Your task to perform on an android device: When is my next meeting? Image 0: 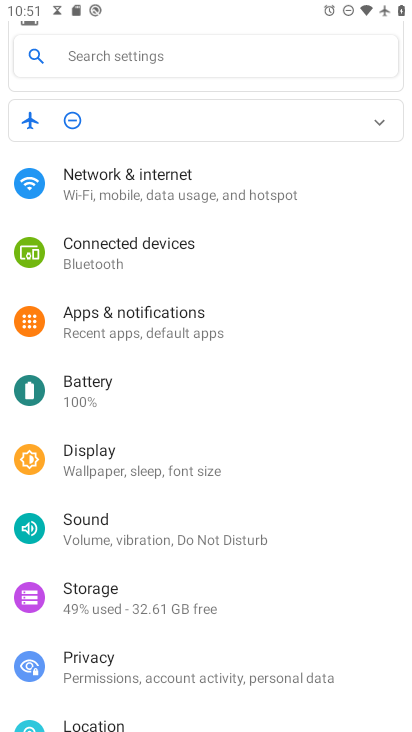
Step 0: press home button
Your task to perform on an android device: When is my next meeting? Image 1: 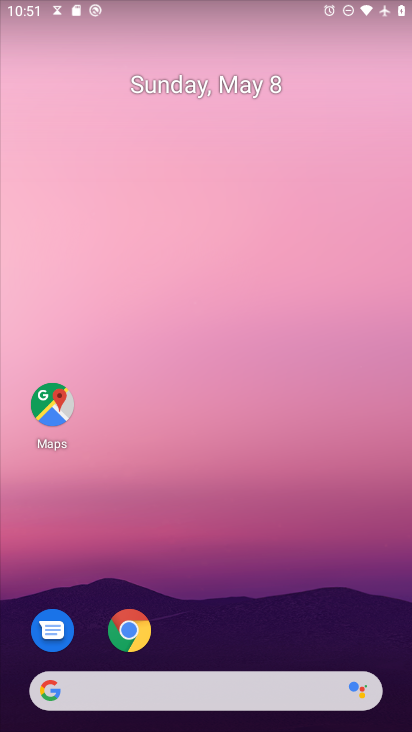
Step 1: drag from (164, 696) to (323, 253)
Your task to perform on an android device: When is my next meeting? Image 2: 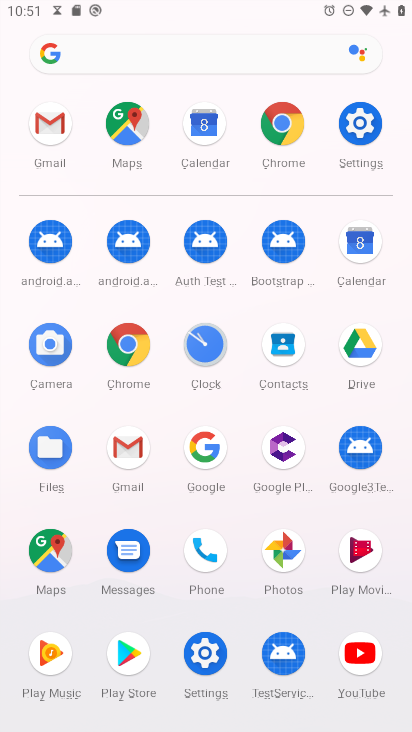
Step 2: click (353, 241)
Your task to perform on an android device: When is my next meeting? Image 3: 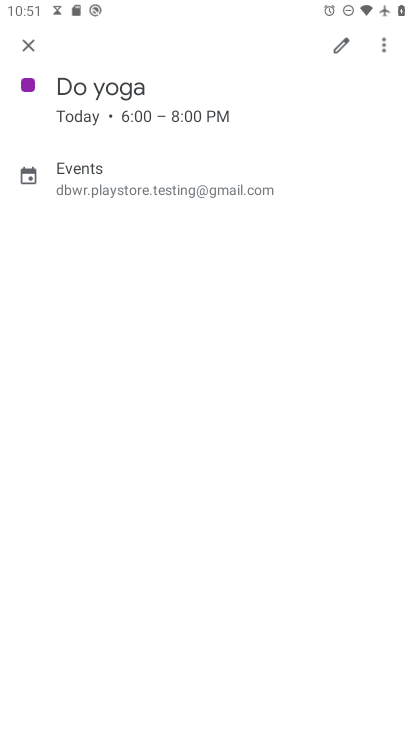
Step 3: task complete